Your task to perform on an android device: read, delete, or share a saved page in the chrome app Image 0: 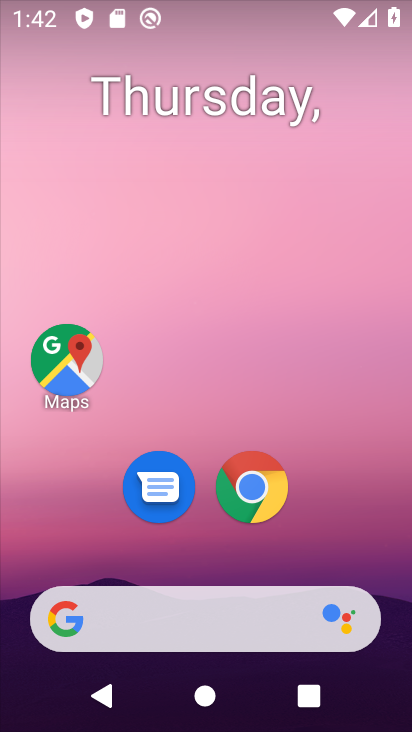
Step 0: click (248, 482)
Your task to perform on an android device: read, delete, or share a saved page in the chrome app Image 1: 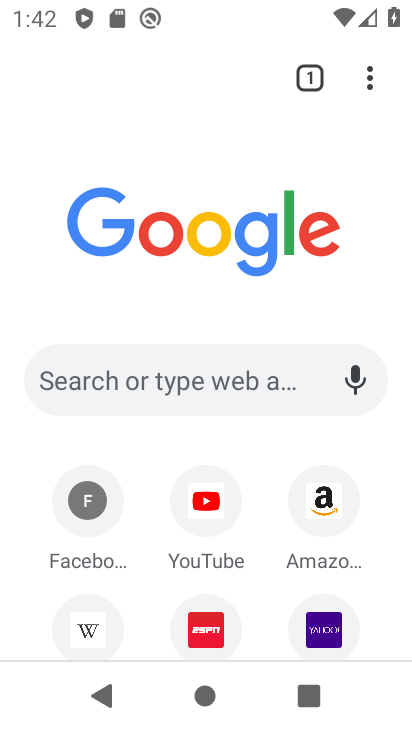
Step 1: click (365, 80)
Your task to perform on an android device: read, delete, or share a saved page in the chrome app Image 2: 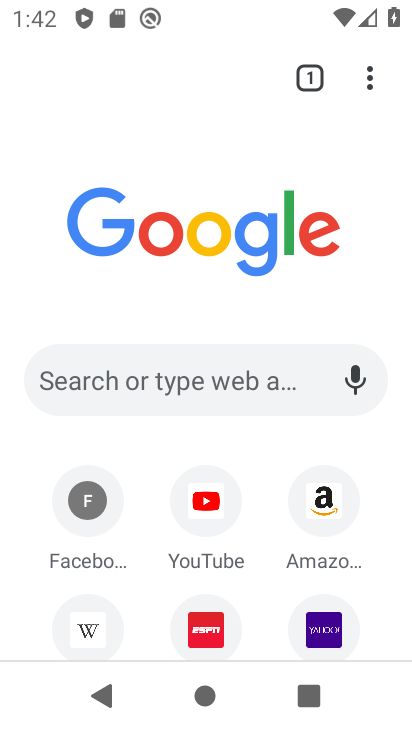
Step 2: click (365, 80)
Your task to perform on an android device: read, delete, or share a saved page in the chrome app Image 3: 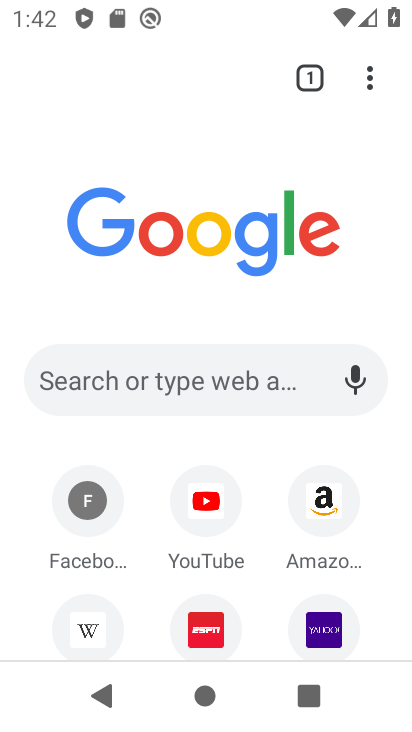
Step 3: click (369, 64)
Your task to perform on an android device: read, delete, or share a saved page in the chrome app Image 4: 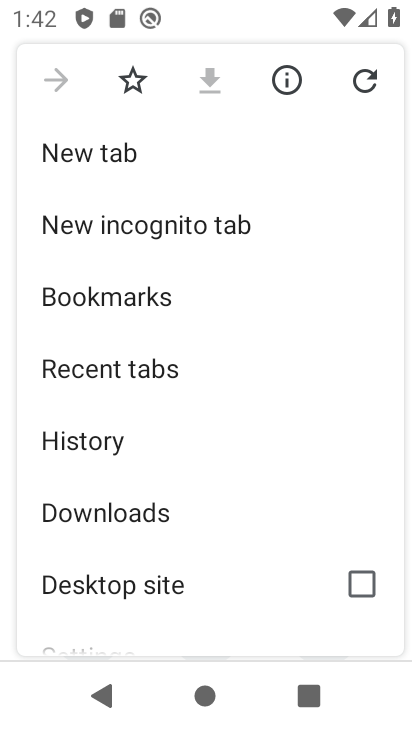
Step 4: click (101, 523)
Your task to perform on an android device: read, delete, or share a saved page in the chrome app Image 5: 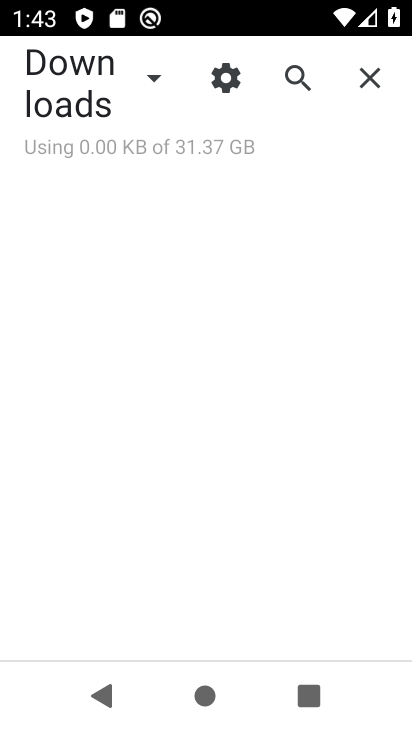
Step 5: click (149, 76)
Your task to perform on an android device: read, delete, or share a saved page in the chrome app Image 6: 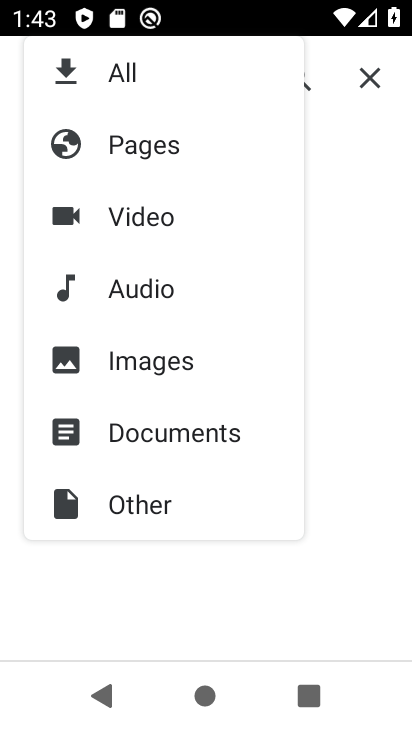
Step 6: click (134, 145)
Your task to perform on an android device: read, delete, or share a saved page in the chrome app Image 7: 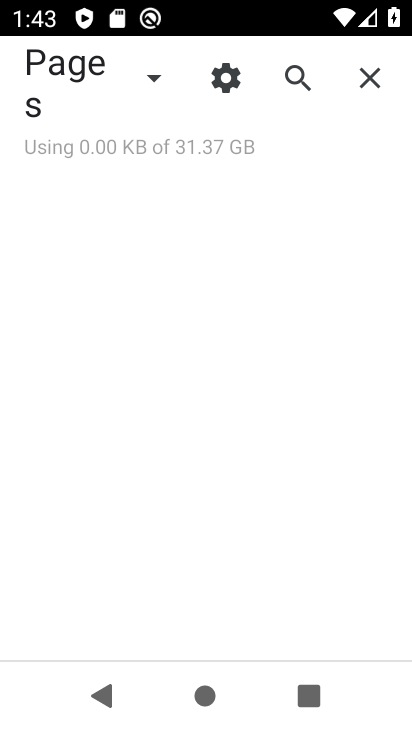
Step 7: task complete